Your task to perform on an android device: Open Wikipedia Image 0: 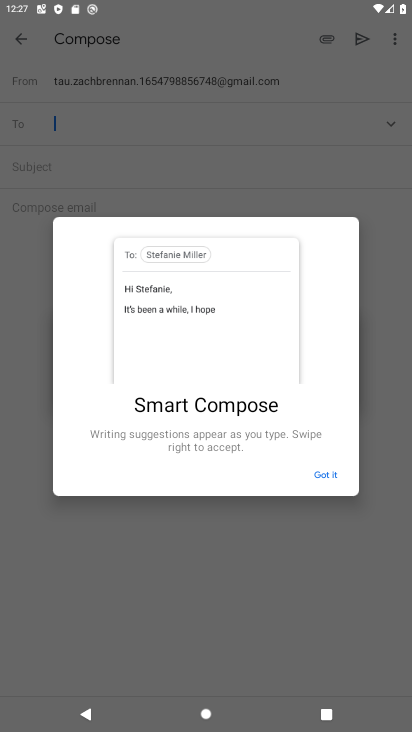
Step 0: press home button
Your task to perform on an android device: Open Wikipedia Image 1: 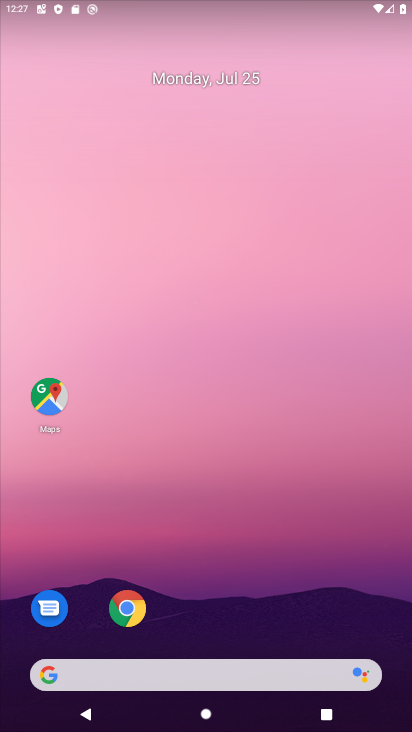
Step 1: click (117, 678)
Your task to perform on an android device: Open Wikipedia Image 2: 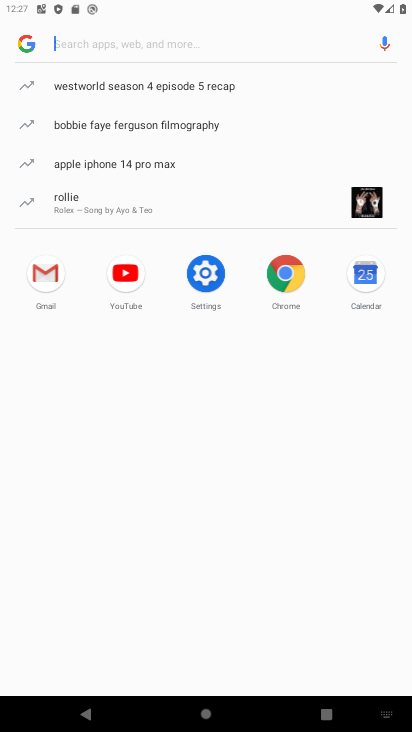
Step 2: type "wikipedia"
Your task to perform on an android device: Open Wikipedia Image 3: 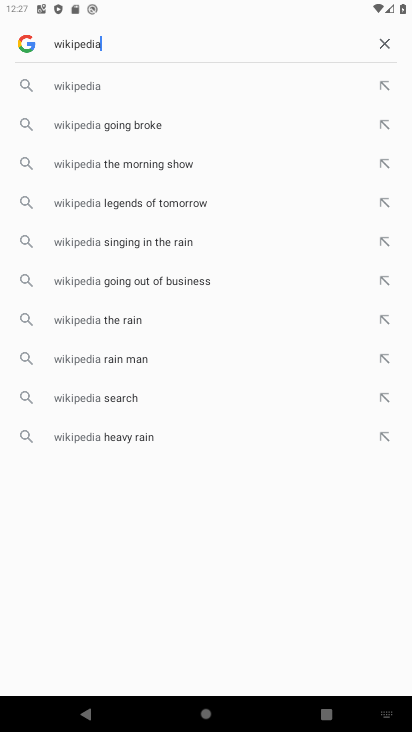
Step 3: click (99, 90)
Your task to perform on an android device: Open Wikipedia Image 4: 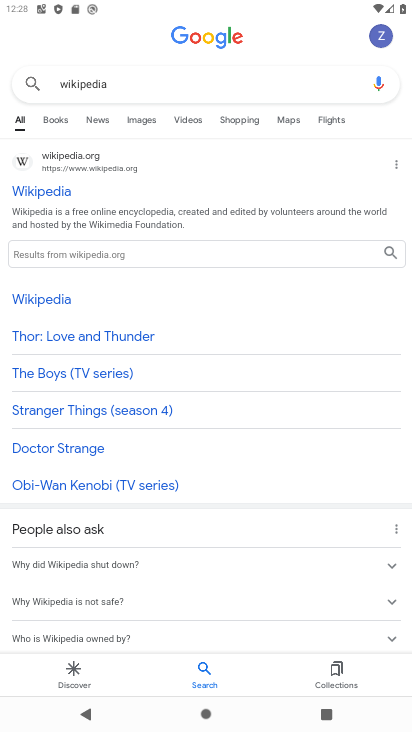
Step 4: click (55, 201)
Your task to perform on an android device: Open Wikipedia Image 5: 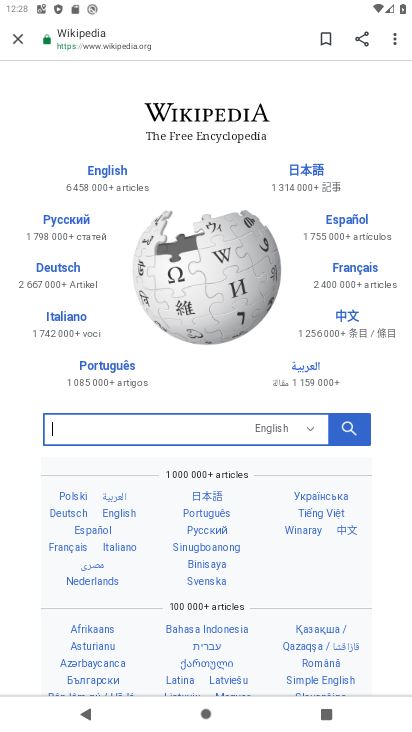
Step 5: task complete